Your task to perform on an android device: Go to wifi settings Image 0: 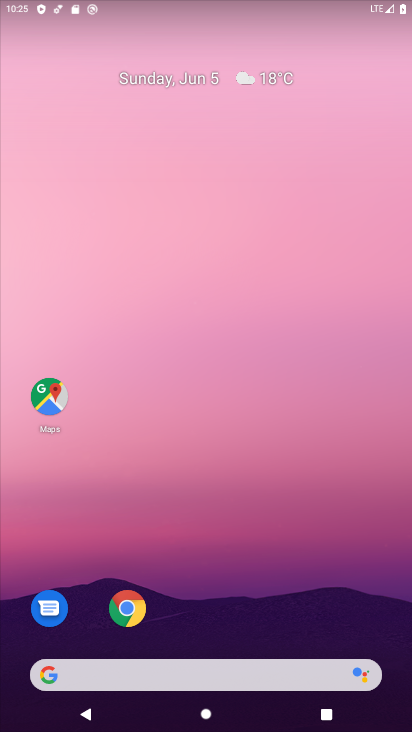
Step 0: drag from (223, 679) to (265, 231)
Your task to perform on an android device: Go to wifi settings Image 1: 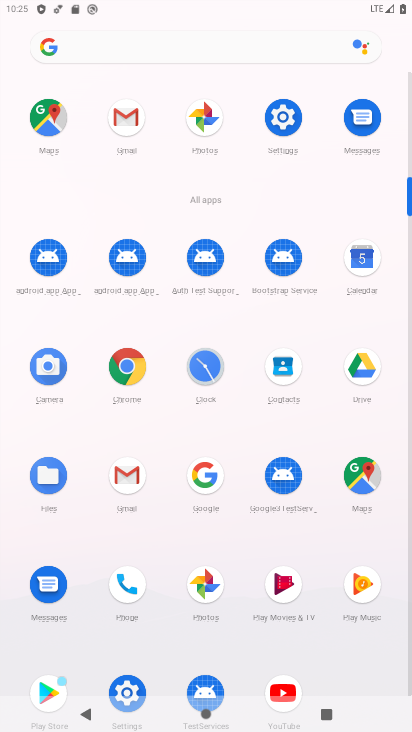
Step 1: click (281, 116)
Your task to perform on an android device: Go to wifi settings Image 2: 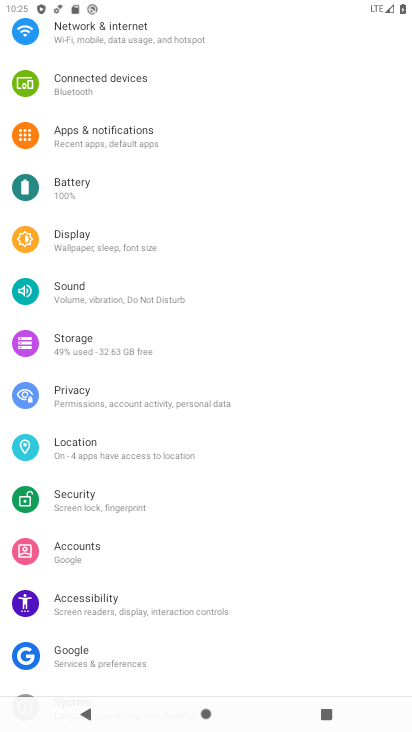
Step 2: click (148, 39)
Your task to perform on an android device: Go to wifi settings Image 3: 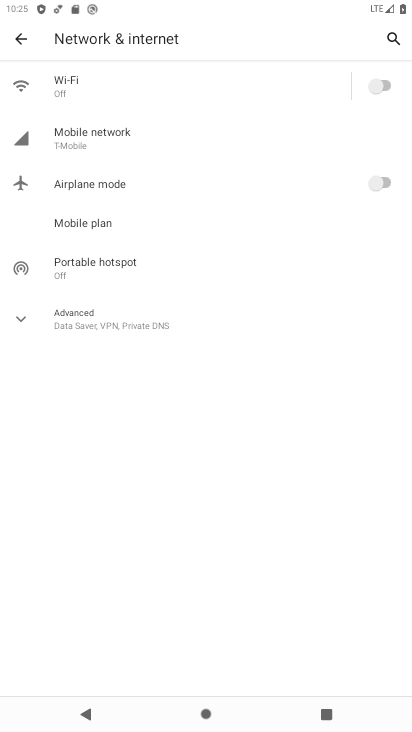
Step 3: click (67, 75)
Your task to perform on an android device: Go to wifi settings Image 4: 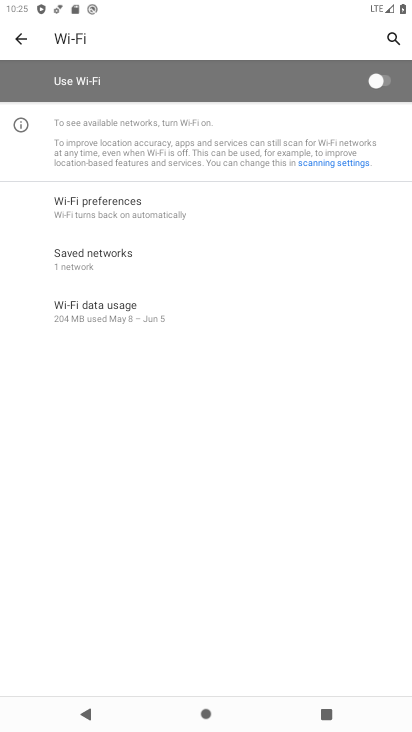
Step 4: task complete